Your task to perform on an android device: set default search engine in the chrome app Image 0: 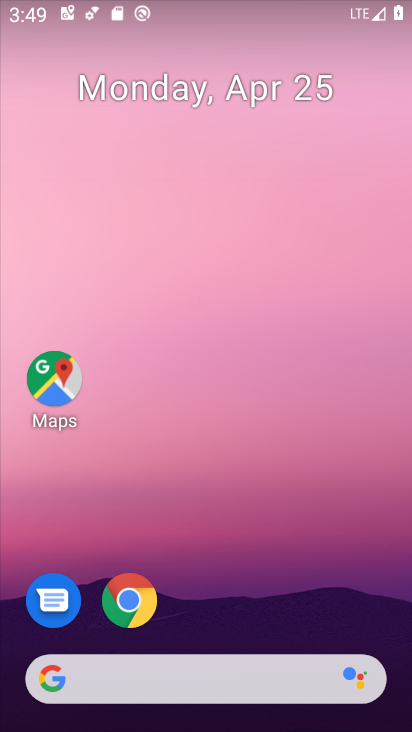
Step 0: drag from (296, 559) to (270, 36)
Your task to perform on an android device: set default search engine in the chrome app Image 1: 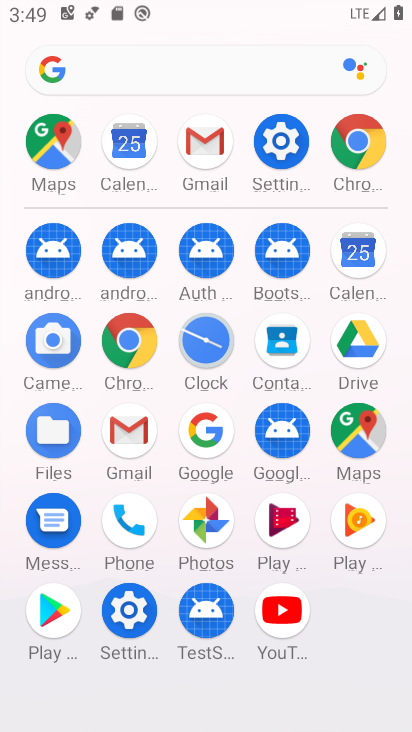
Step 1: click (358, 141)
Your task to perform on an android device: set default search engine in the chrome app Image 2: 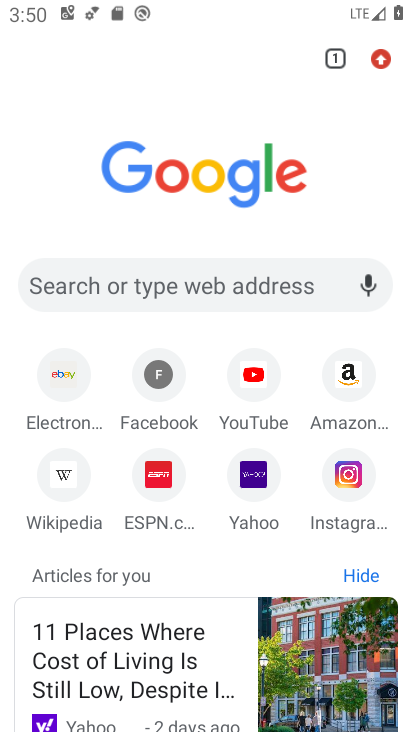
Step 2: click (379, 53)
Your task to perform on an android device: set default search engine in the chrome app Image 3: 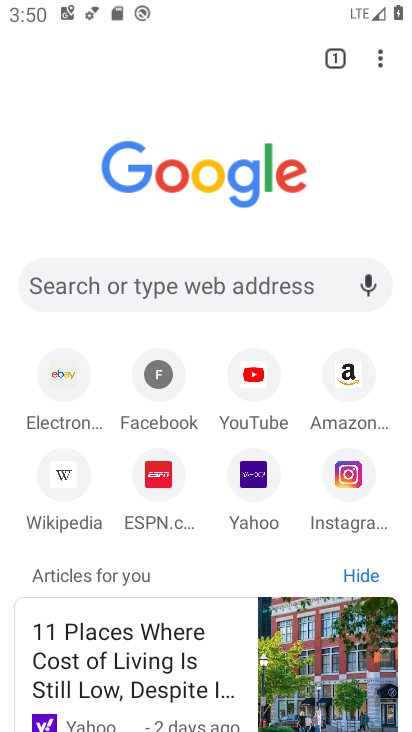
Step 3: click (380, 54)
Your task to perform on an android device: set default search engine in the chrome app Image 4: 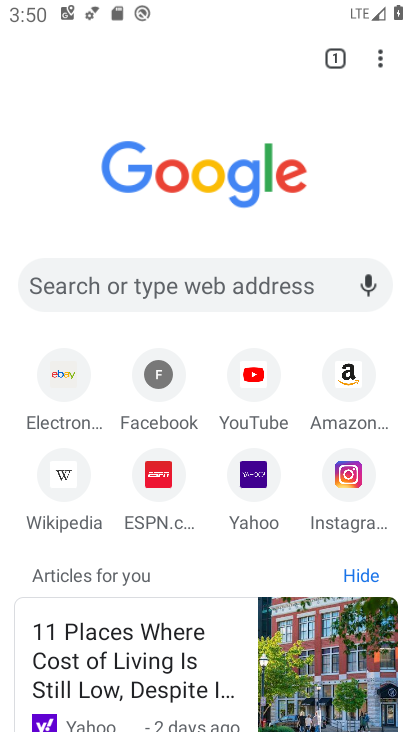
Step 4: click (375, 61)
Your task to perform on an android device: set default search engine in the chrome app Image 5: 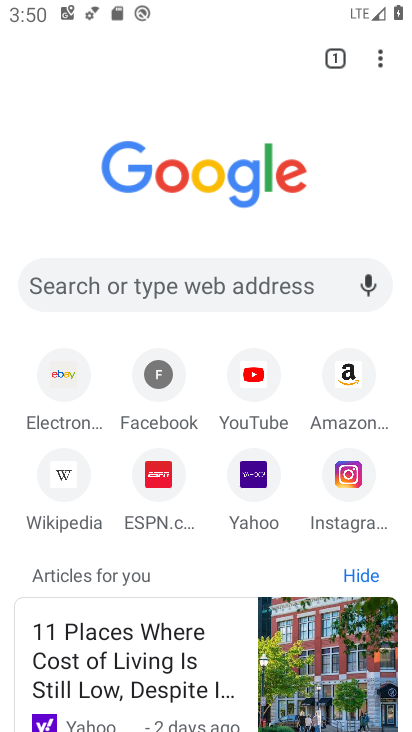
Step 5: drag from (383, 56) to (214, 569)
Your task to perform on an android device: set default search engine in the chrome app Image 6: 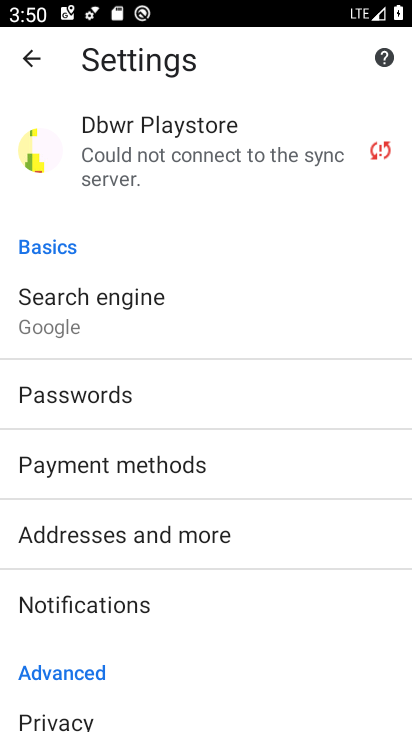
Step 6: click (150, 305)
Your task to perform on an android device: set default search engine in the chrome app Image 7: 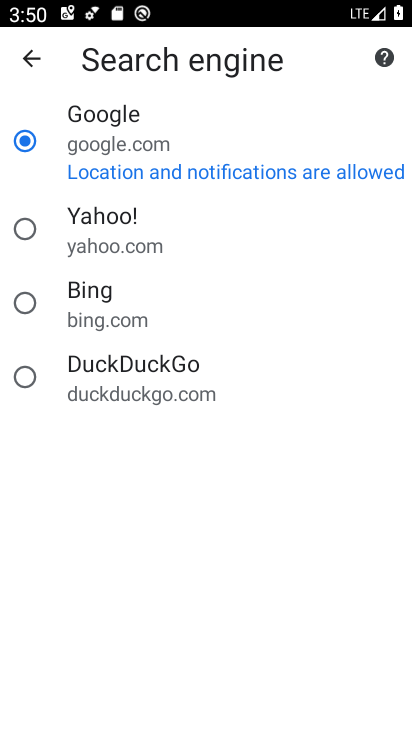
Step 7: click (137, 380)
Your task to perform on an android device: set default search engine in the chrome app Image 8: 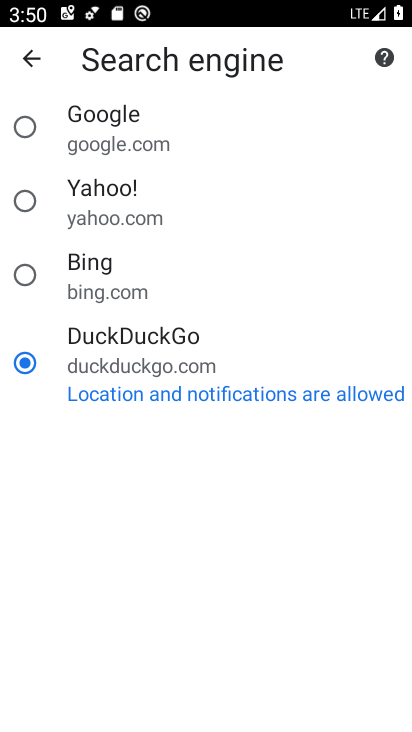
Step 8: task complete